Your task to perform on an android device: open the mobile data screen to see how much data has been used Image 0: 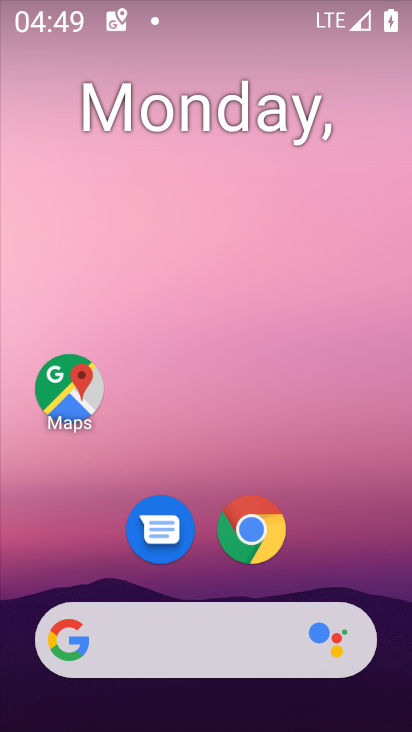
Step 0: drag from (387, 574) to (355, 196)
Your task to perform on an android device: open the mobile data screen to see how much data has been used Image 1: 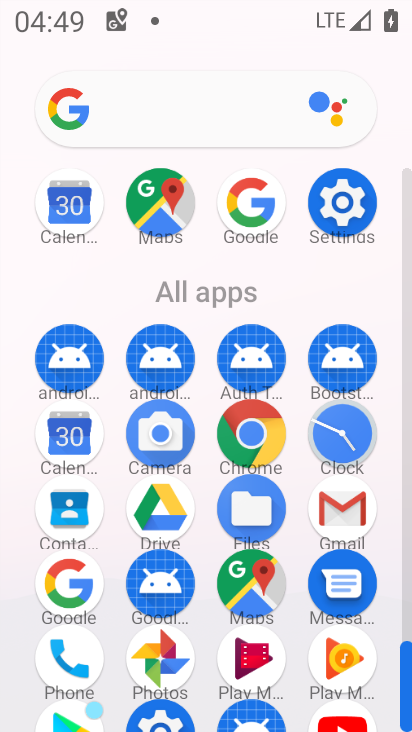
Step 1: click (353, 198)
Your task to perform on an android device: open the mobile data screen to see how much data has been used Image 2: 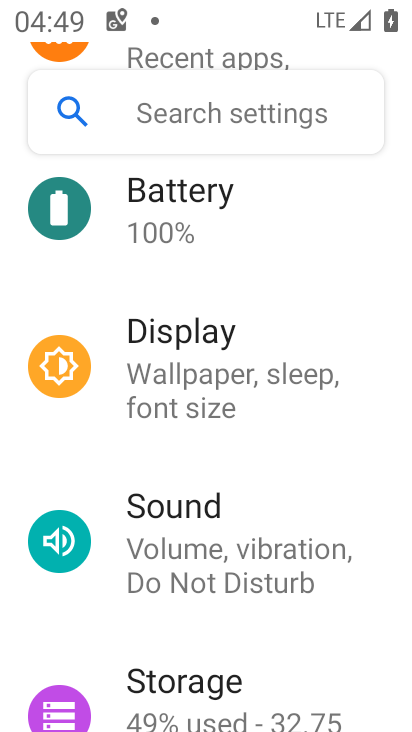
Step 2: drag from (278, 289) to (270, 536)
Your task to perform on an android device: open the mobile data screen to see how much data has been used Image 3: 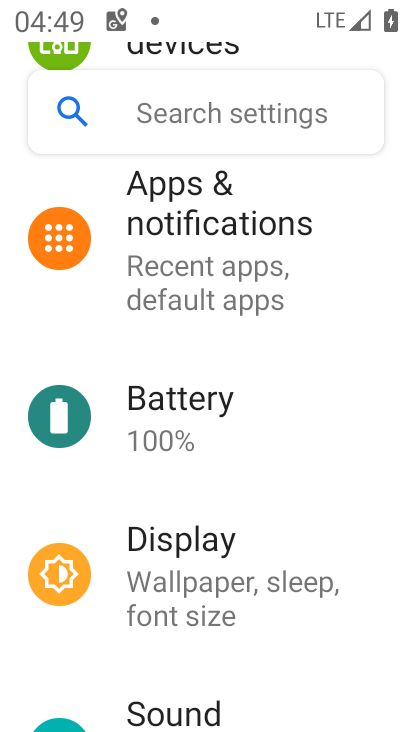
Step 3: drag from (234, 209) to (258, 588)
Your task to perform on an android device: open the mobile data screen to see how much data has been used Image 4: 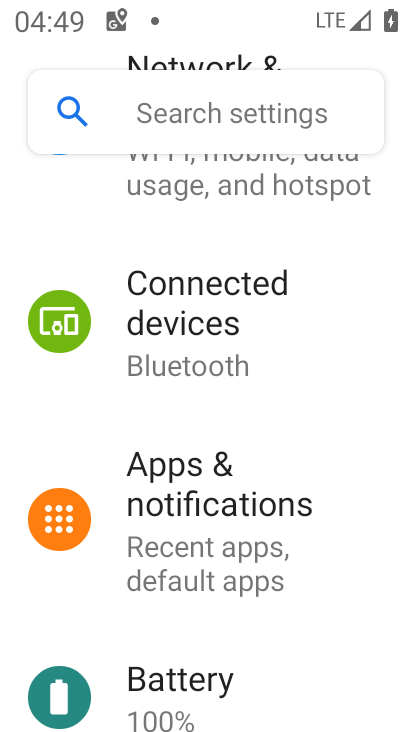
Step 4: drag from (264, 225) to (267, 583)
Your task to perform on an android device: open the mobile data screen to see how much data has been used Image 5: 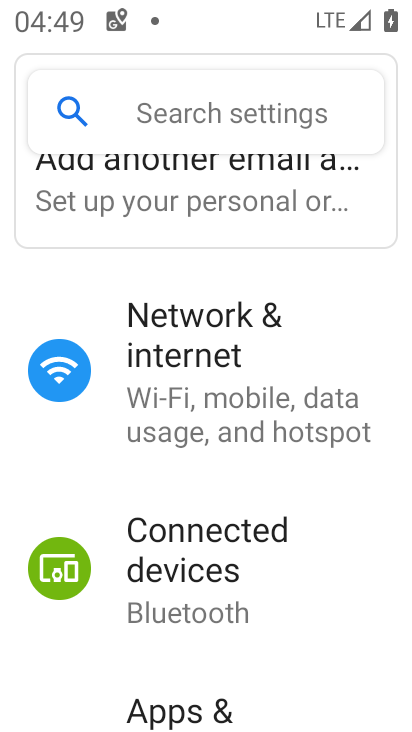
Step 5: click (247, 421)
Your task to perform on an android device: open the mobile data screen to see how much data has been used Image 6: 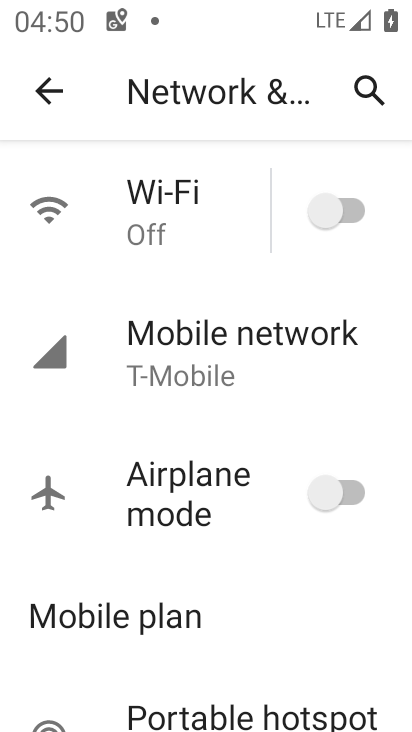
Step 6: click (233, 366)
Your task to perform on an android device: open the mobile data screen to see how much data has been used Image 7: 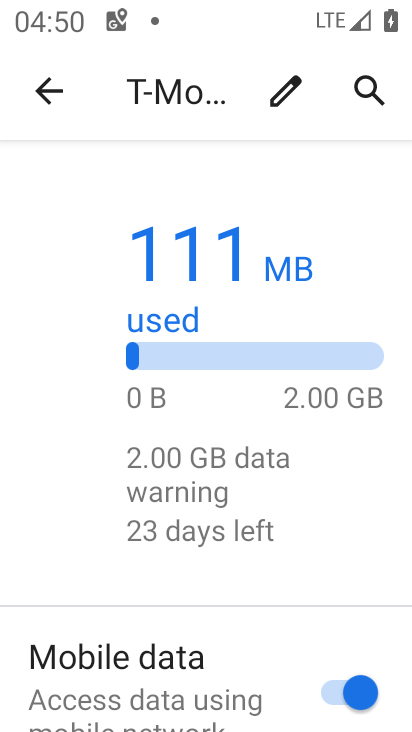
Step 7: task complete